Your task to perform on an android device: What's the weather? Image 0: 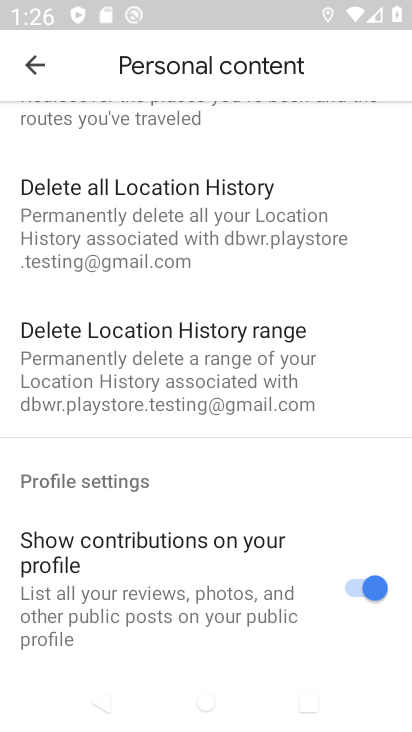
Step 0: drag from (247, 641) to (253, 171)
Your task to perform on an android device: What's the weather? Image 1: 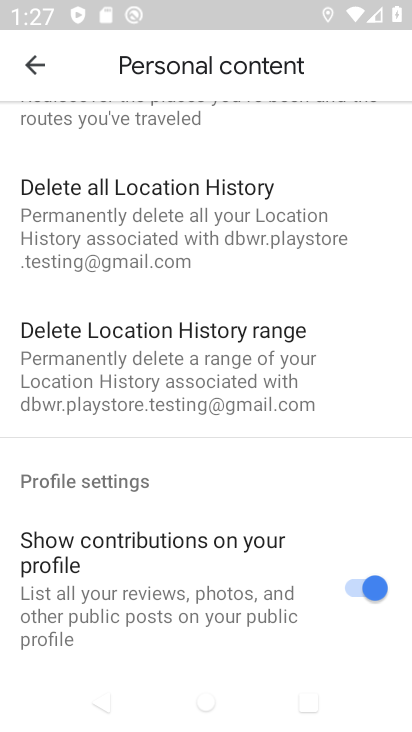
Step 1: press home button
Your task to perform on an android device: What's the weather? Image 2: 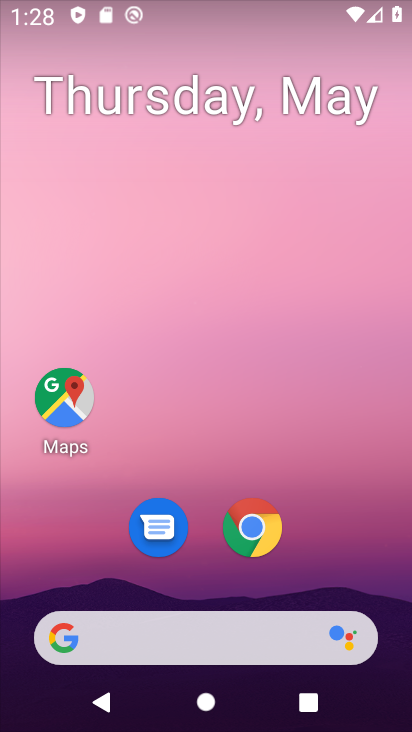
Step 2: click (230, 525)
Your task to perform on an android device: What's the weather? Image 3: 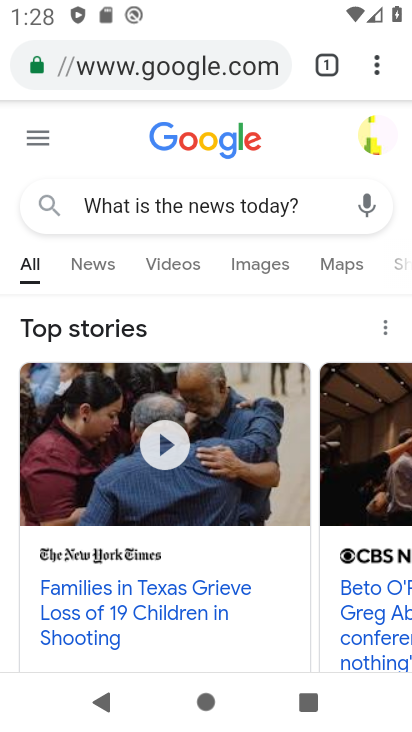
Step 3: click (182, 62)
Your task to perform on an android device: What's the weather? Image 4: 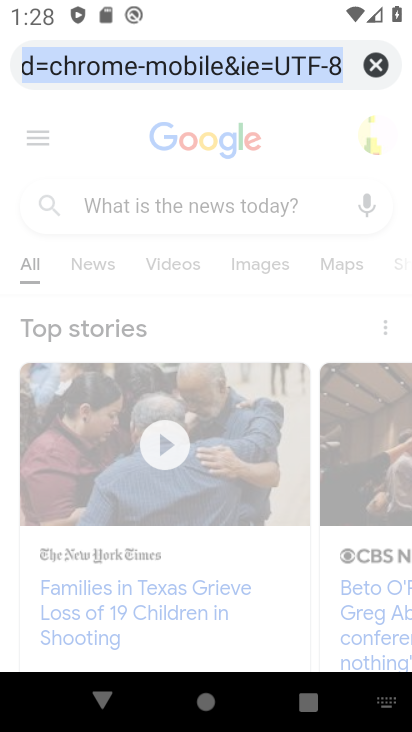
Step 4: click (379, 57)
Your task to perform on an android device: What's the weather? Image 5: 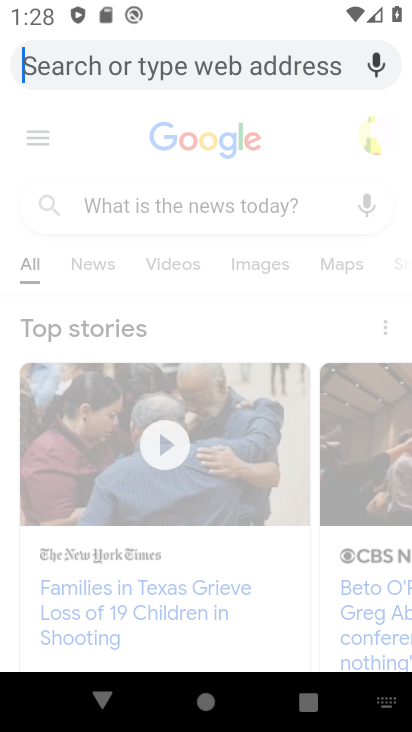
Step 5: type "What's the weather?"
Your task to perform on an android device: What's the weather? Image 6: 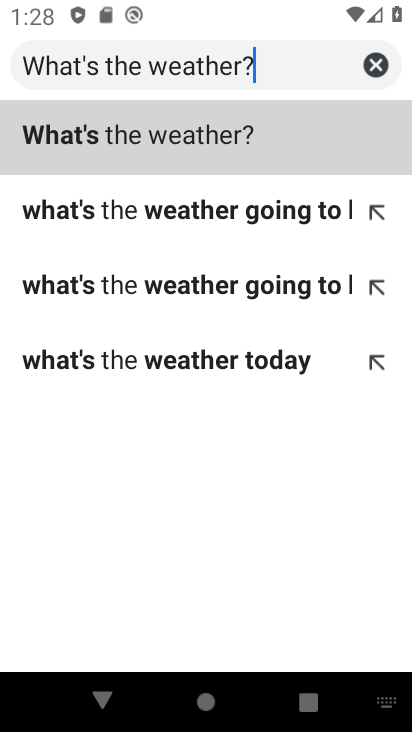
Step 6: click (63, 129)
Your task to perform on an android device: What's the weather? Image 7: 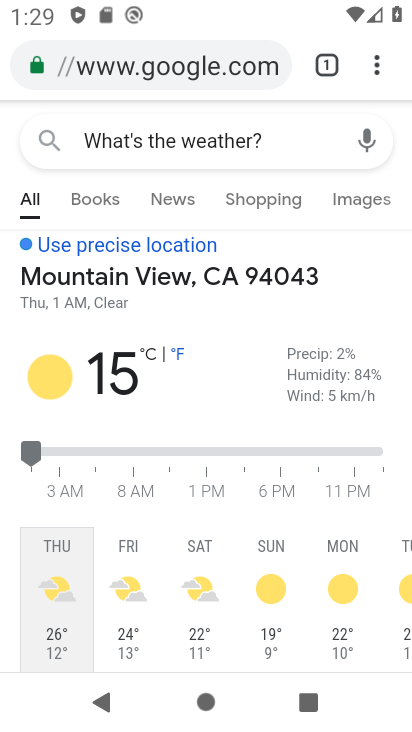
Step 7: task complete